Your task to perform on an android device: Show me popular videos on Youtube Image 0: 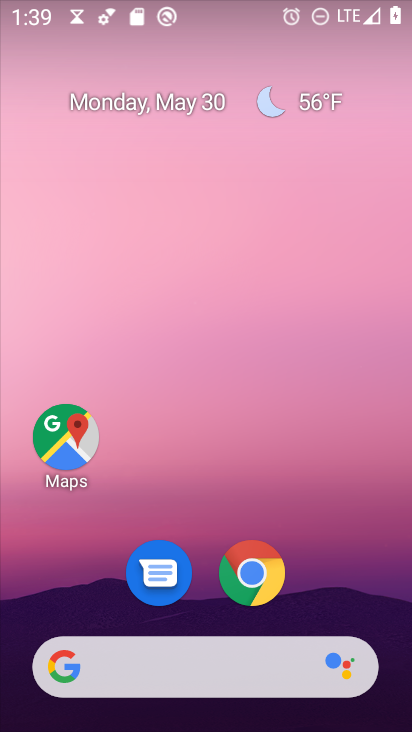
Step 0: drag from (307, 661) to (283, 0)
Your task to perform on an android device: Show me popular videos on Youtube Image 1: 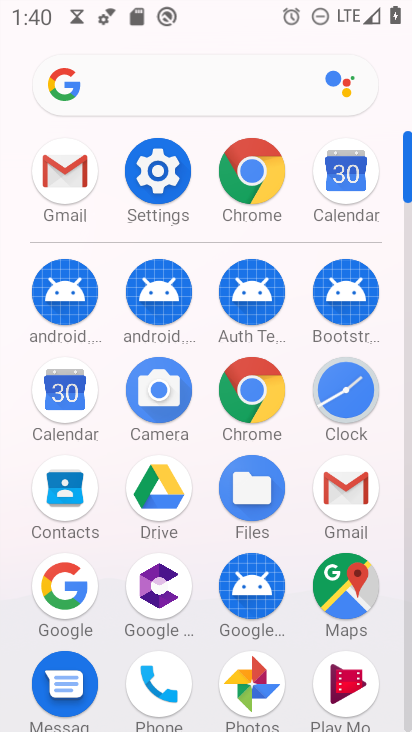
Step 1: drag from (292, 211) to (280, 0)
Your task to perform on an android device: Show me popular videos on Youtube Image 2: 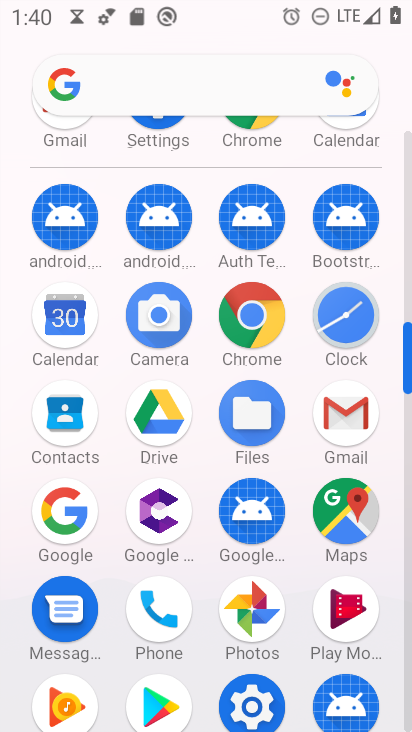
Step 2: drag from (291, 582) to (335, 232)
Your task to perform on an android device: Show me popular videos on Youtube Image 3: 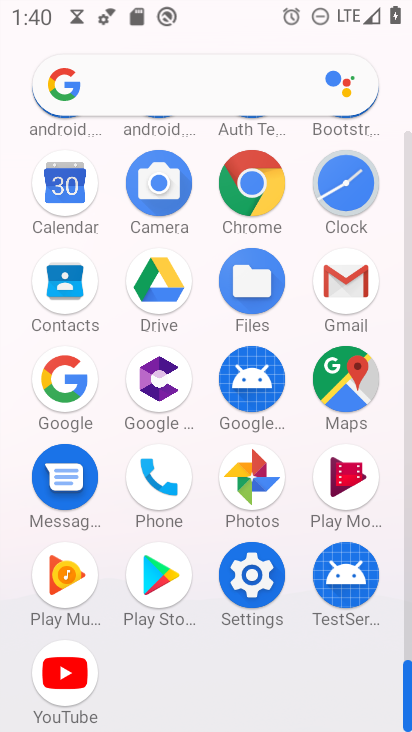
Step 3: click (57, 671)
Your task to perform on an android device: Show me popular videos on Youtube Image 4: 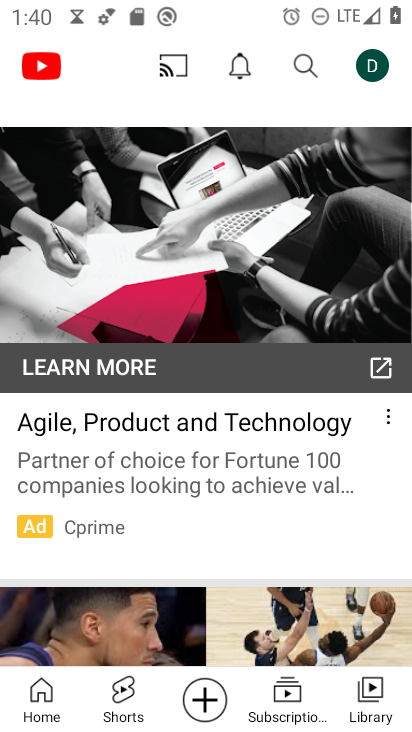
Step 4: task complete